Your task to perform on an android device: Open Google Maps Image 0: 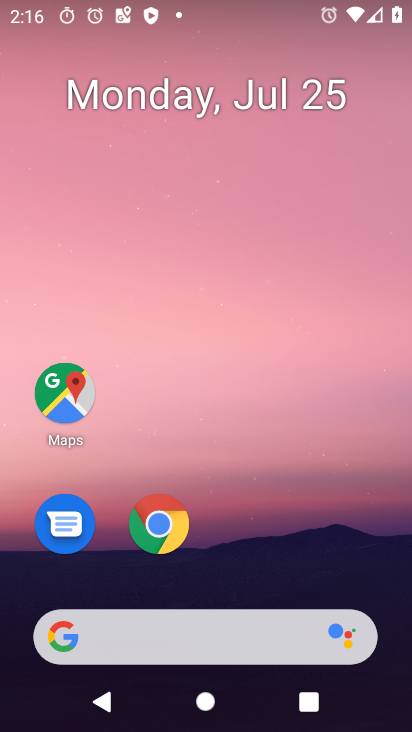
Step 0: press home button
Your task to perform on an android device: Open Google Maps Image 1: 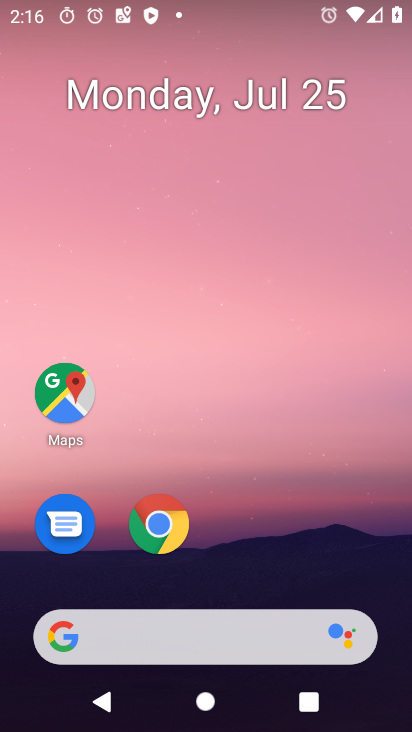
Step 1: click (56, 394)
Your task to perform on an android device: Open Google Maps Image 2: 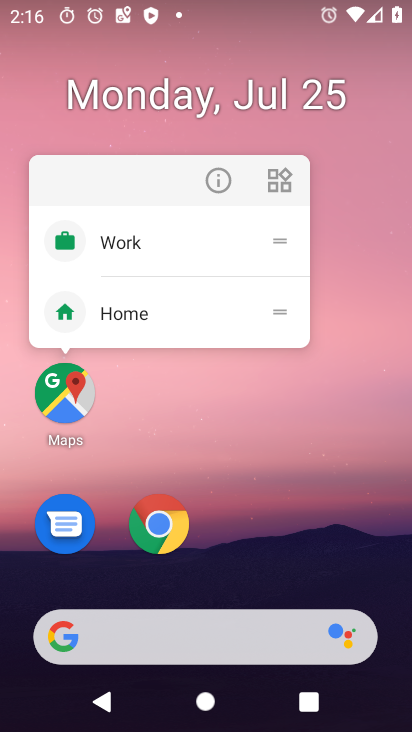
Step 2: click (56, 394)
Your task to perform on an android device: Open Google Maps Image 3: 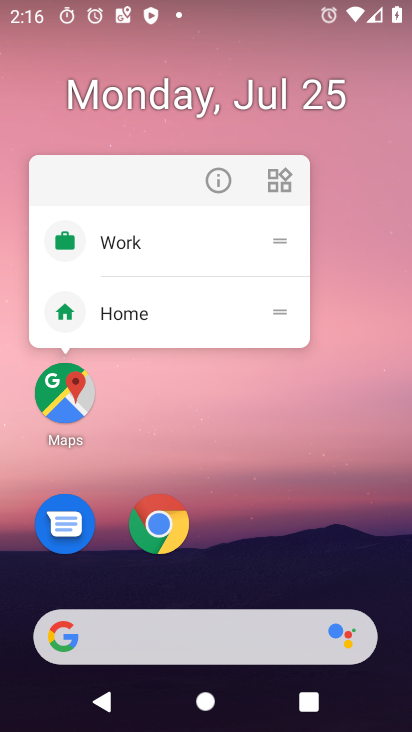
Step 3: click (307, 522)
Your task to perform on an android device: Open Google Maps Image 4: 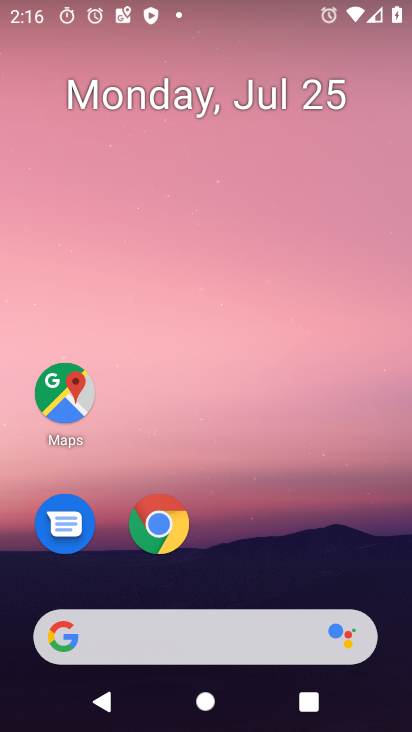
Step 4: drag from (322, 572) to (341, 42)
Your task to perform on an android device: Open Google Maps Image 5: 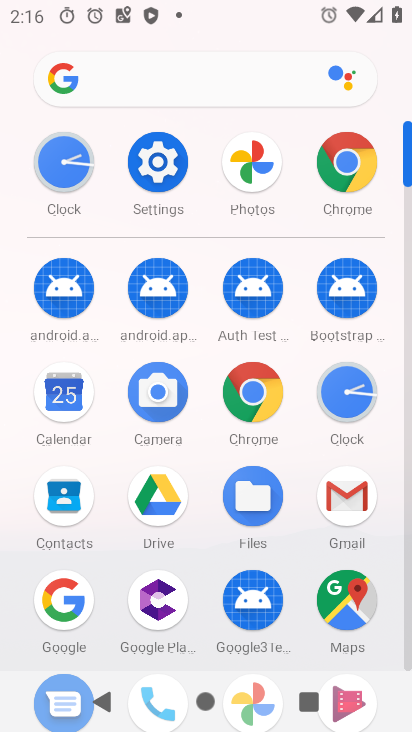
Step 5: click (333, 600)
Your task to perform on an android device: Open Google Maps Image 6: 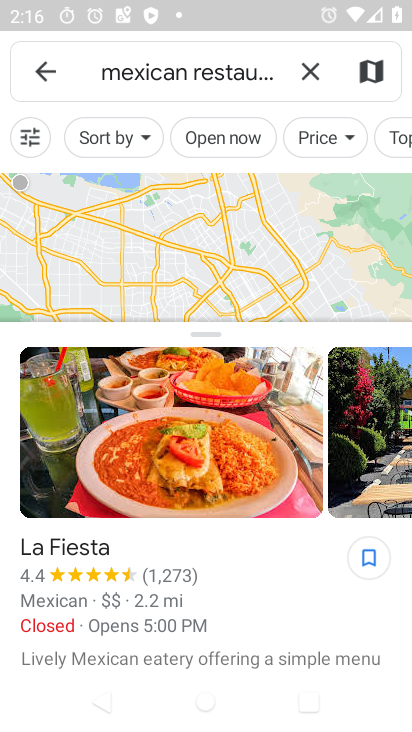
Step 6: click (40, 70)
Your task to perform on an android device: Open Google Maps Image 7: 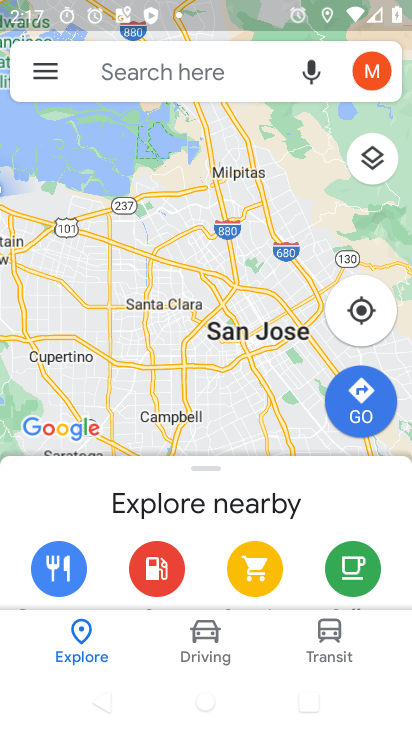
Step 7: task complete